Your task to perform on an android device: delete browsing data in the chrome app Image 0: 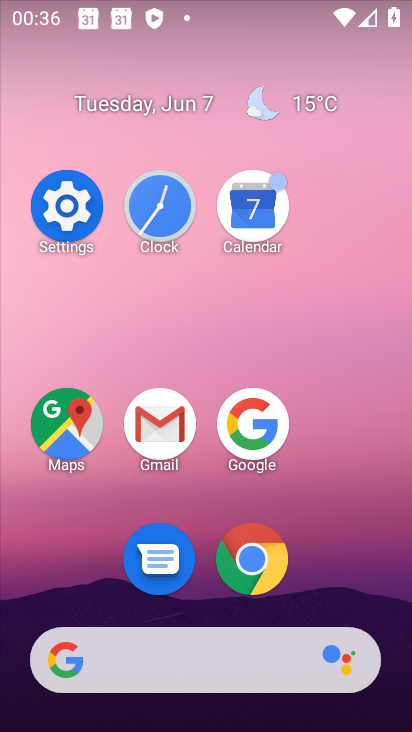
Step 0: click (266, 558)
Your task to perform on an android device: delete browsing data in the chrome app Image 1: 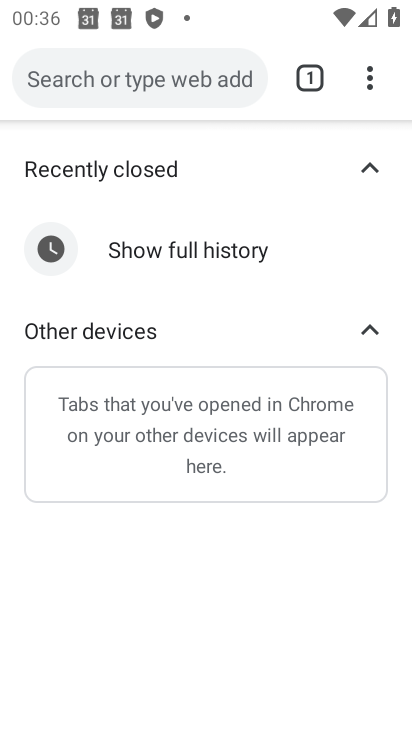
Step 1: click (378, 81)
Your task to perform on an android device: delete browsing data in the chrome app Image 2: 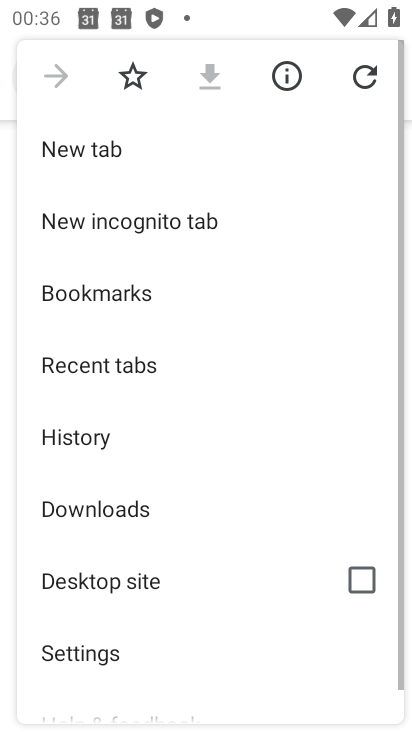
Step 2: drag from (209, 571) to (248, 222)
Your task to perform on an android device: delete browsing data in the chrome app Image 3: 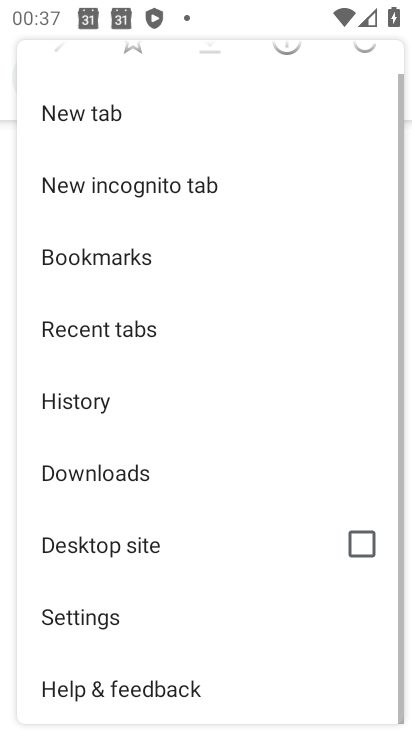
Step 3: click (127, 619)
Your task to perform on an android device: delete browsing data in the chrome app Image 4: 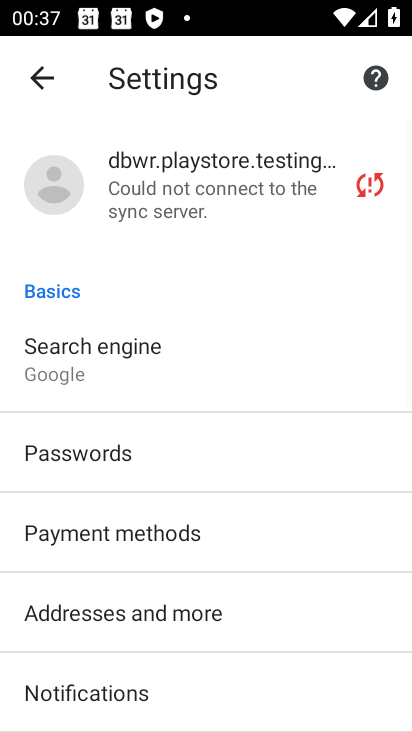
Step 4: drag from (127, 619) to (159, 279)
Your task to perform on an android device: delete browsing data in the chrome app Image 5: 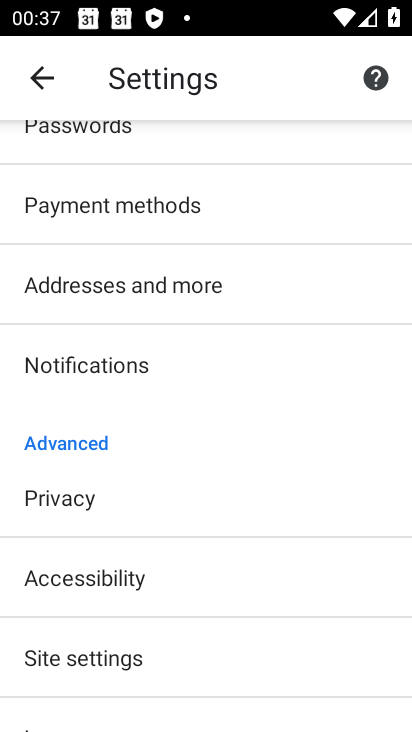
Step 5: click (161, 532)
Your task to perform on an android device: delete browsing data in the chrome app Image 6: 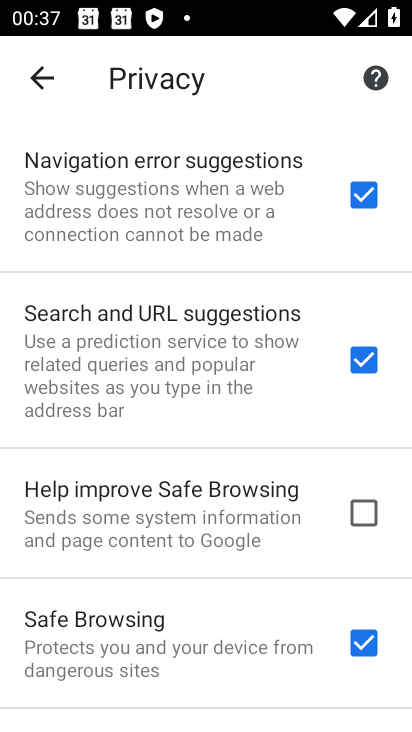
Step 6: drag from (95, 654) to (184, 224)
Your task to perform on an android device: delete browsing data in the chrome app Image 7: 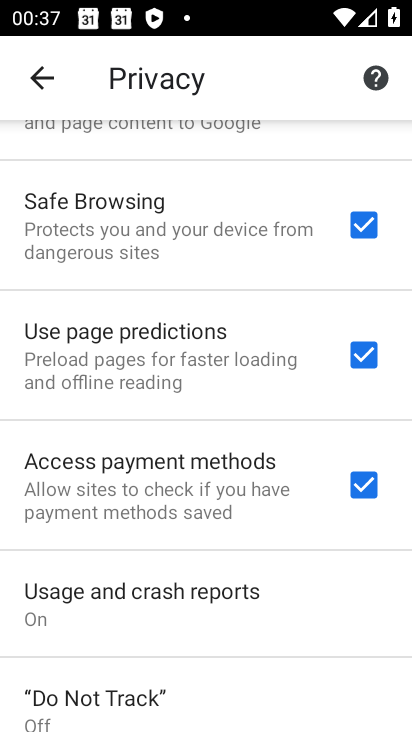
Step 7: drag from (154, 610) to (208, 267)
Your task to perform on an android device: delete browsing data in the chrome app Image 8: 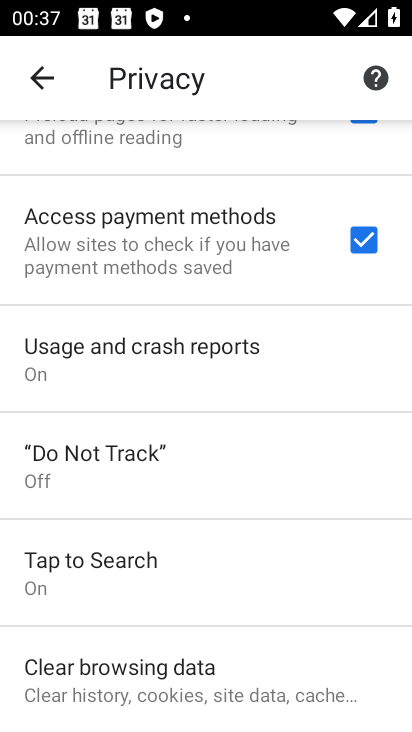
Step 8: click (214, 672)
Your task to perform on an android device: delete browsing data in the chrome app Image 9: 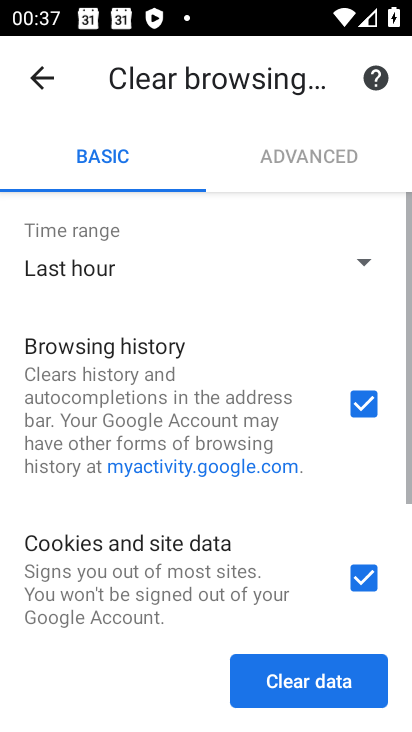
Step 9: drag from (209, 611) to (226, 283)
Your task to perform on an android device: delete browsing data in the chrome app Image 10: 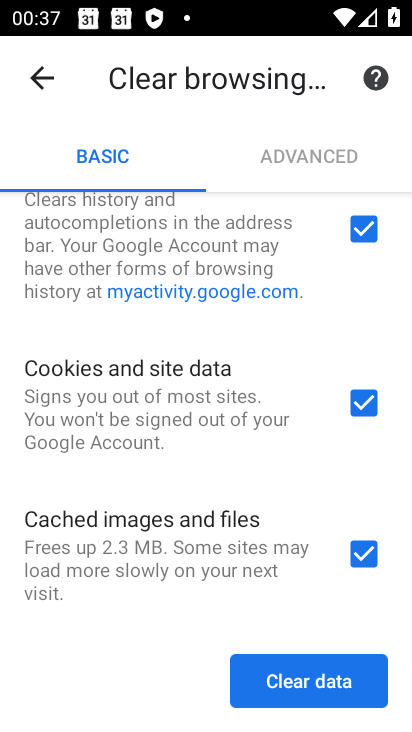
Step 10: click (304, 685)
Your task to perform on an android device: delete browsing data in the chrome app Image 11: 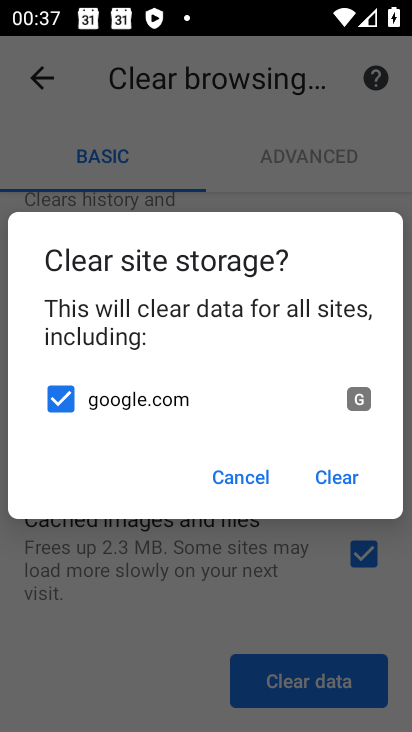
Step 11: click (336, 475)
Your task to perform on an android device: delete browsing data in the chrome app Image 12: 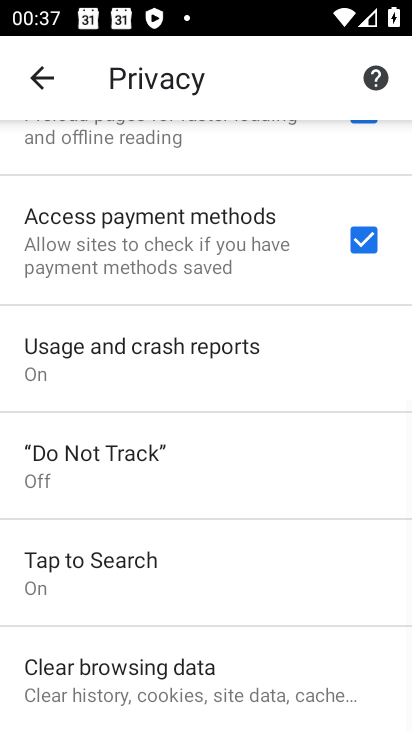
Step 12: task complete